Your task to perform on an android device: Open Amazon Image 0: 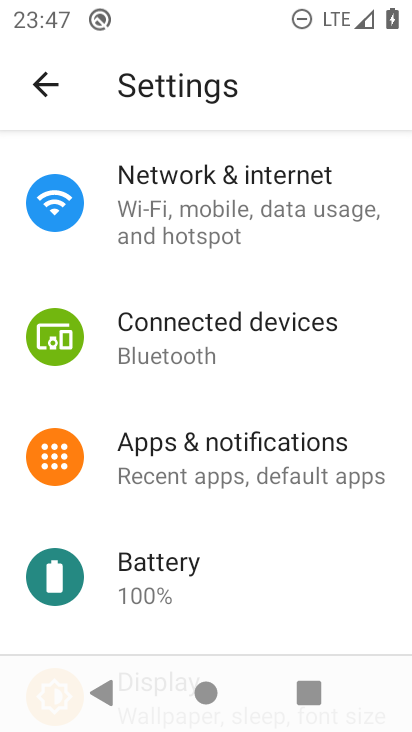
Step 0: press home button
Your task to perform on an android device: Open Amazon Image 1: 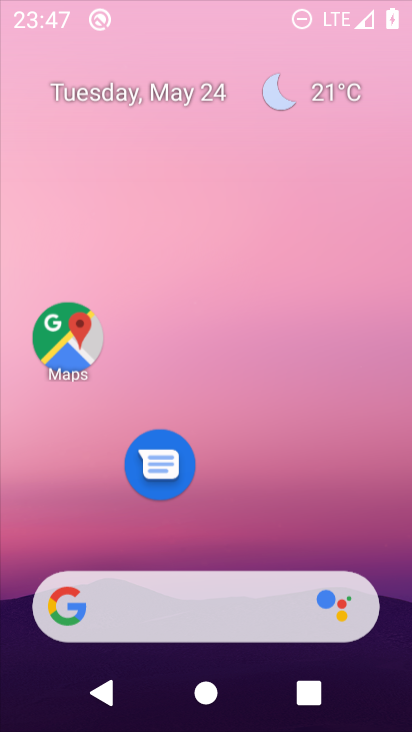
Step 1: drag from (229, 612) to (236, 218)
Your task to perform on an android device: Open Amazon Image 2: 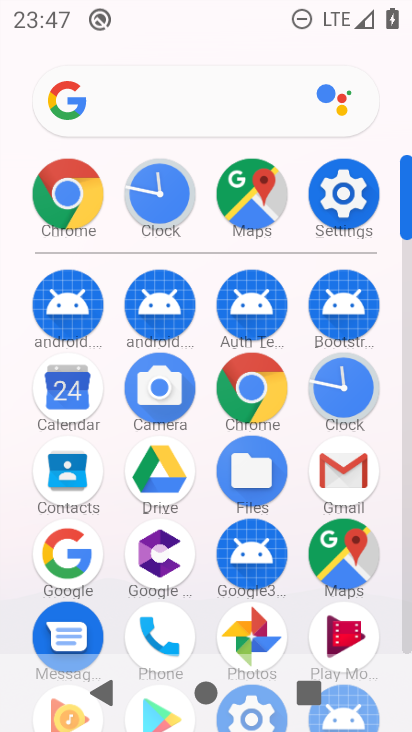
Step 2: click (256, 382)
Your task to perform on an android device: Open Amazon Image 3: 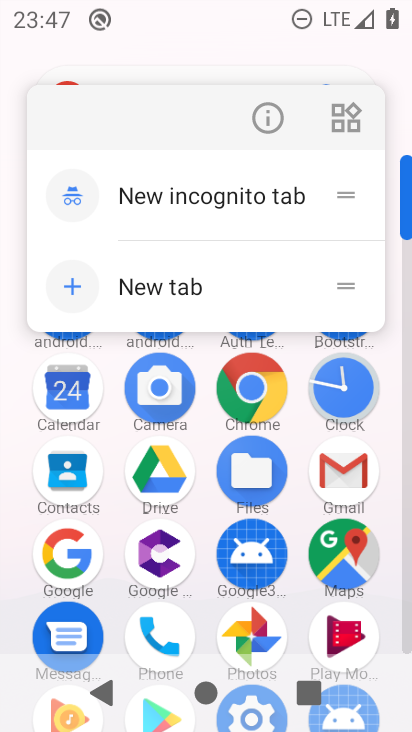
Step 3: click (257, 109)
Your task to perform on an android device: Open Amazon Image 4: 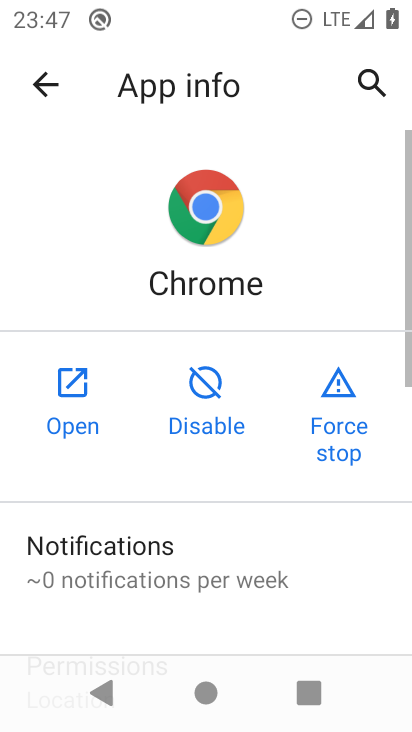
Step 4: click (71, 389)
Your task to perform on an android device: Open Amazon Image 5: 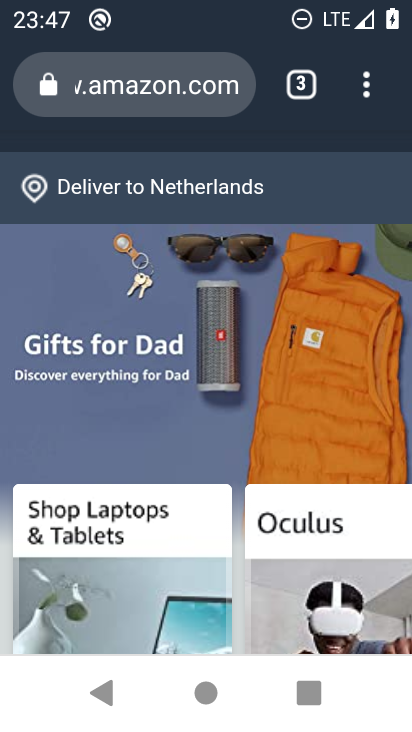
Step 5: drag from (235, 528) to (225, 183)
Your task to perform on an android device: Open Amazon Image 6: 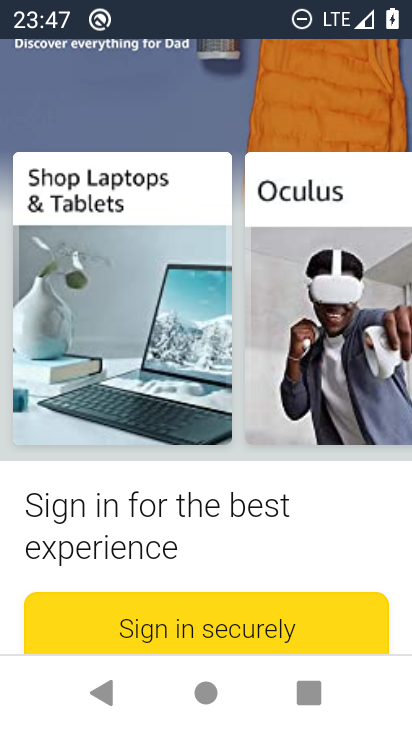
Step 6: drag from (247, 551) to (206, 149)
Your task to perform on an android device: Open Amazon Image 7: 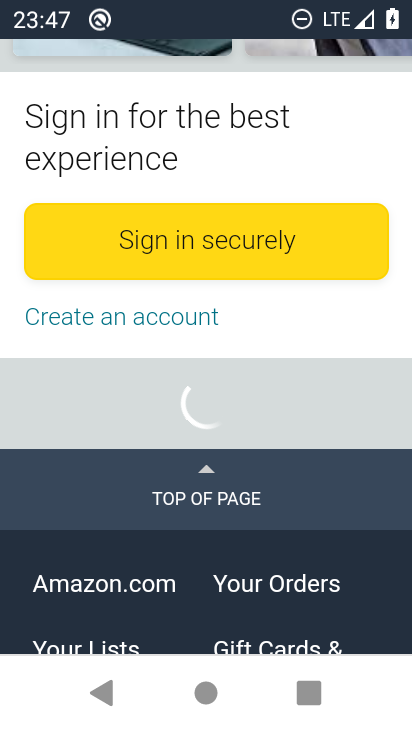
Step 7: drag from (231, 98) to (271, 528)
Your task to perform on an android device: Open Amazon Image 8: 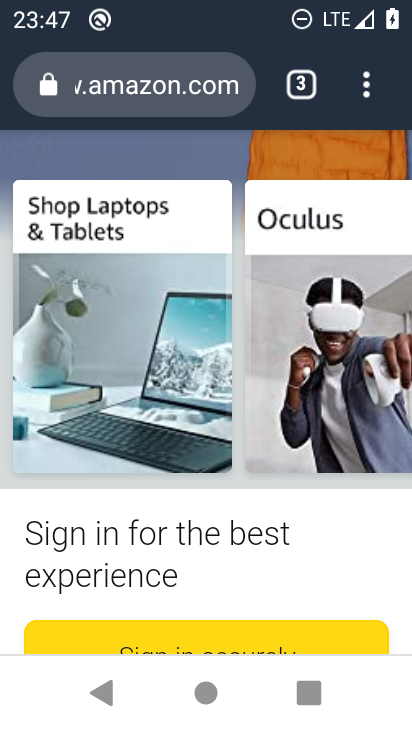
Step 8: drag from (236, 134) to (249, 565)
Your task to perform on an android device: Open Amazon Image 9: 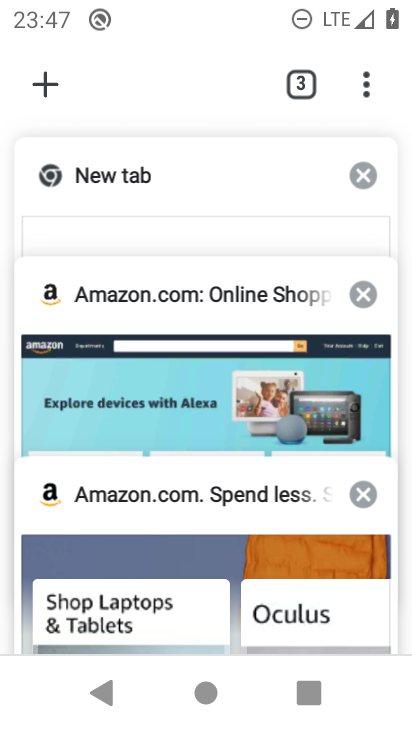
Step 9: click (232, 406)
Your task to perform on an android device: Open Amazon Image 10: 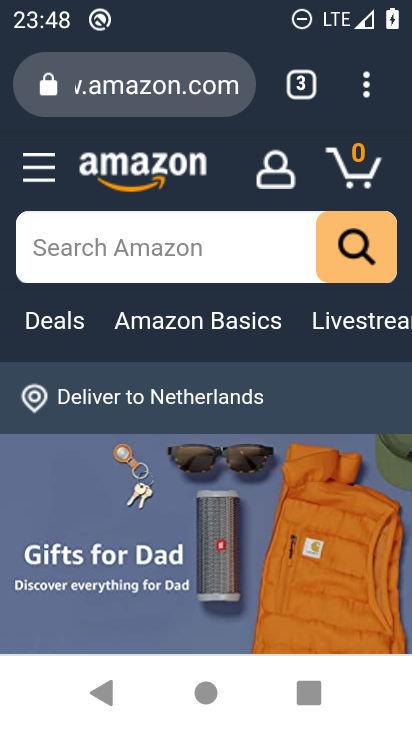
Step 10: task complete